Your task to perform on an android device: Open Google Image 0: 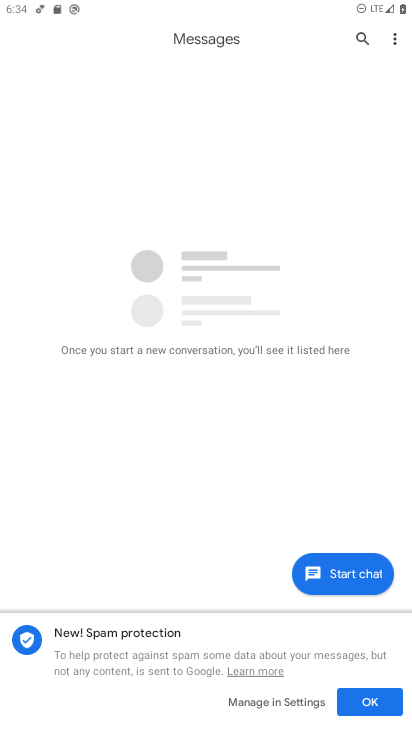
Step 0: press home button
Your task to perform on an android device: Open Google Image 1: 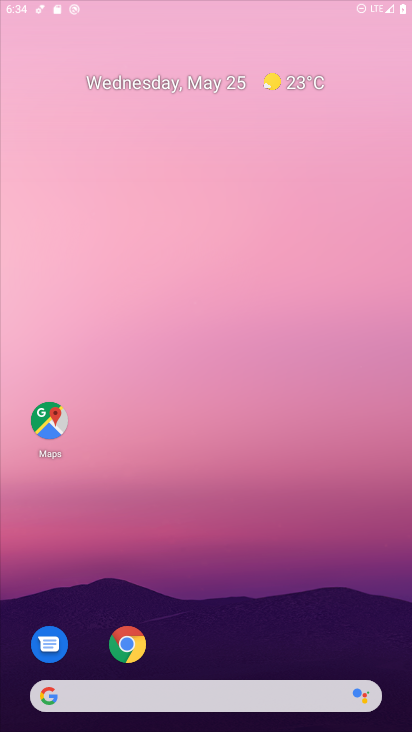
Step 1: drag from (386, 650) to (189, 20)
Your task to perform on an android device: Open Google Image 2: 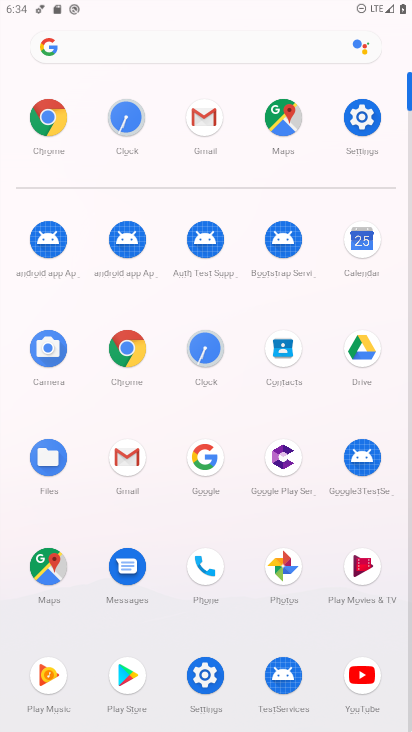
Step 2: click (198, 487)
Your task to perform on an android device: Open Google Image 3: 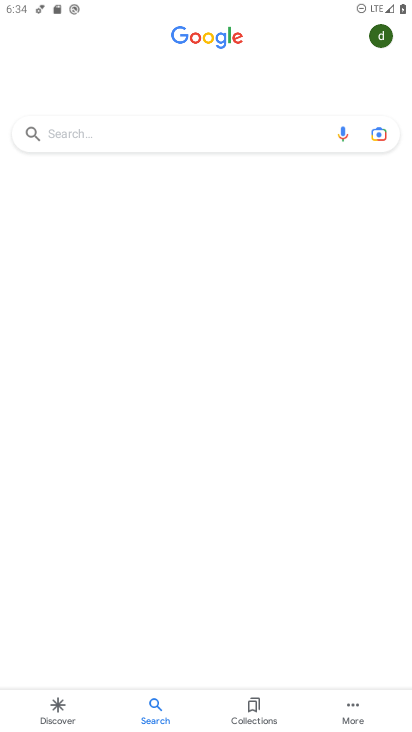
Step 3: task complete